Your task to perform on an android device: turn off sleep mode Image 0: 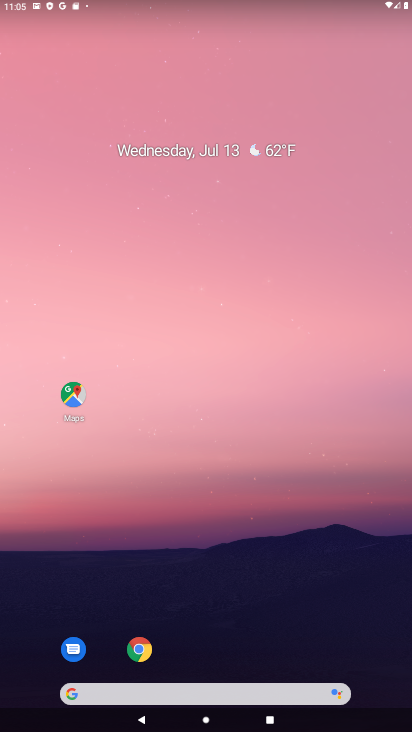
Step 0: drag from (353, 654) to (160, 18)
Your task to perform on an android device: turn off sleep mode Image 1: 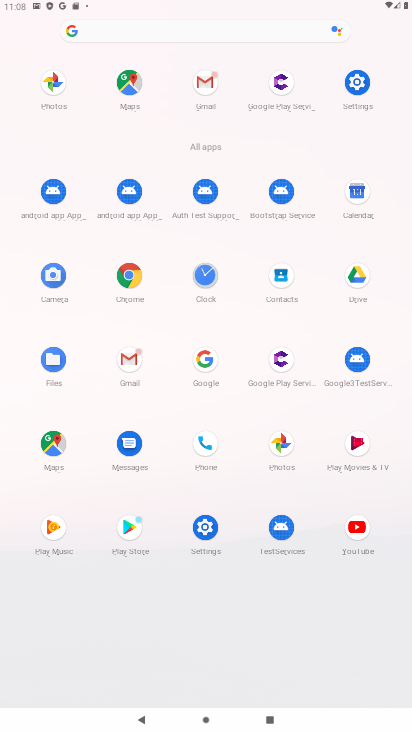
Step 1: click (202, 531)
Your task to perform on an android device: turn off sleep mode Image 2: 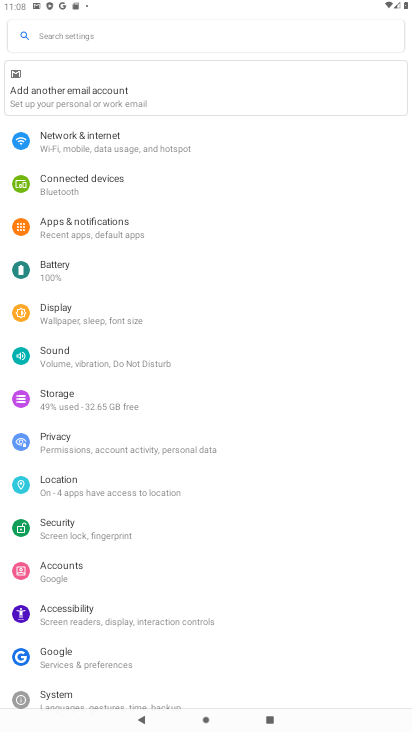
Step 2: task complete